Your task to perform on an android device: Open privacy settings Image 0: 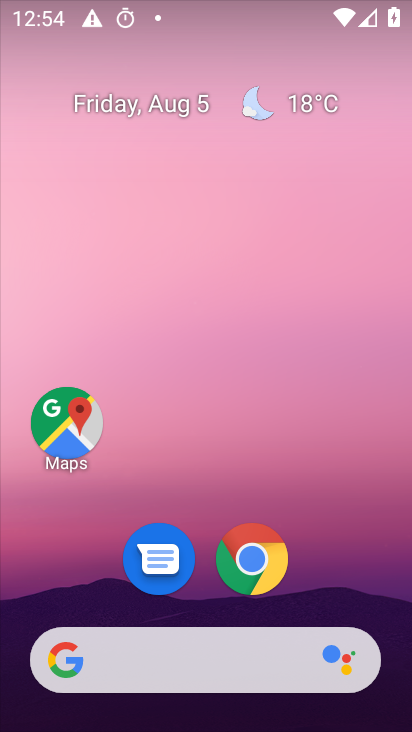
Step 0: drag from (26, 669) to (223, 204)
Your task to perform on an android device: Open privacy settings Image 1: 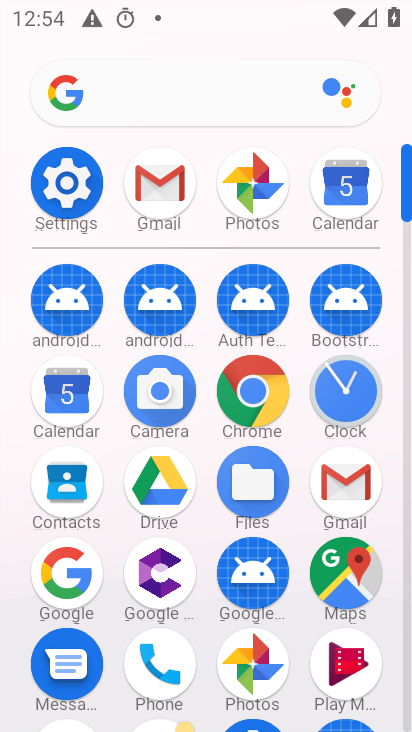
Step 1: click (78, 194)
Your task to perform on an android device: Open privacy settings Image 2: 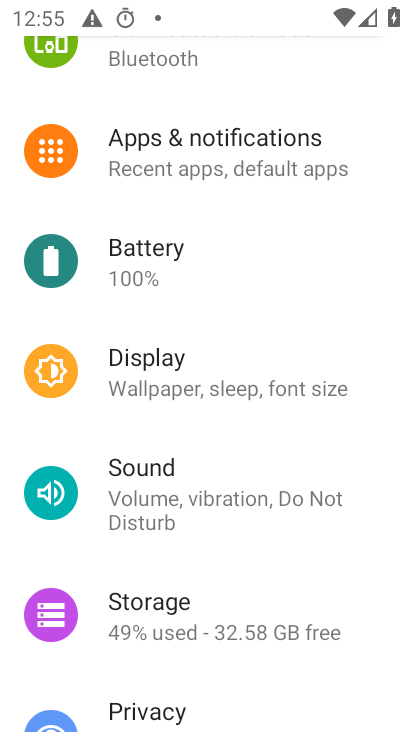
Step 2: click (150, 714)
Your task to perform on an android device: Open privacy settings Image 3: 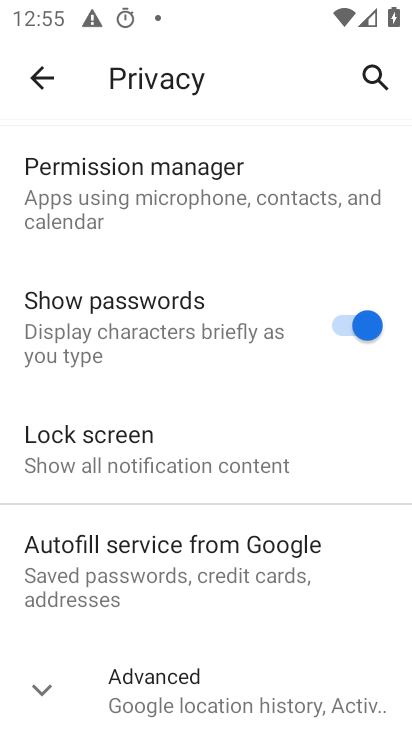
Step 3: task complete